Your task to perform on an android device: move an email to a new category in the gmail app Image 0: 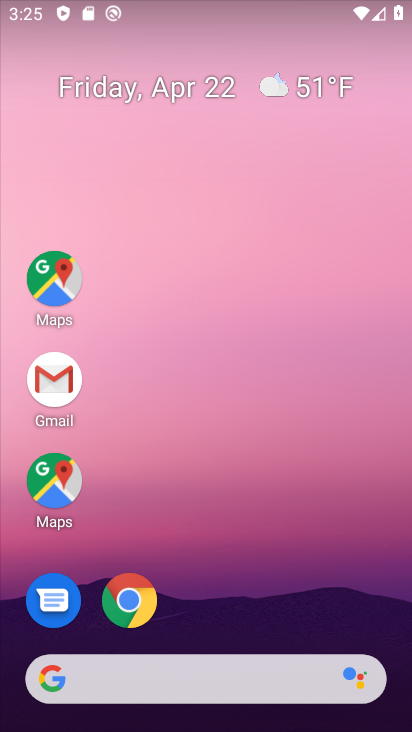
Step 0: drag from (308, 700) to (106, 102)
Your task to perform on an android device: move an email to a new category in the gmail app Image 1: 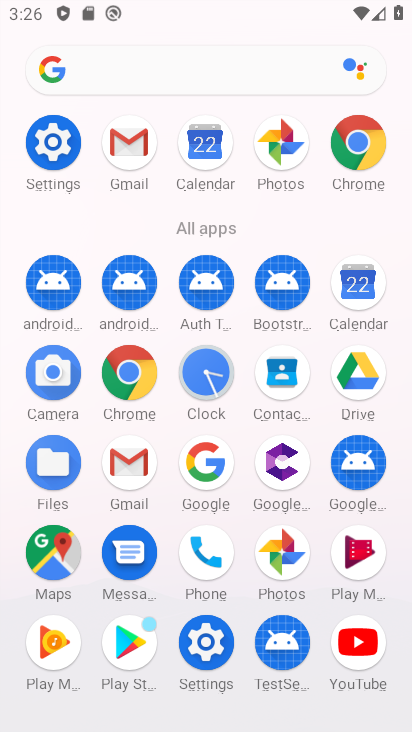
Step 1: click (120, 460)
Your task to perform on an android device: move an email to a new category in the gmail app Image 2: 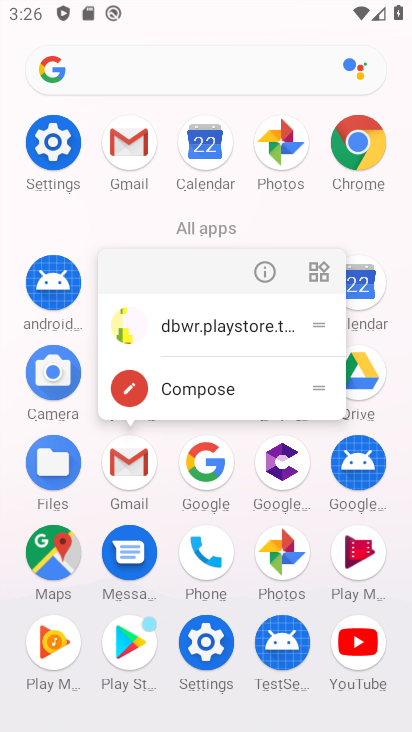
Step 2: click (122, 459)
Your task to perform on an android device: move an email to a new category in the gmail app Image 3: 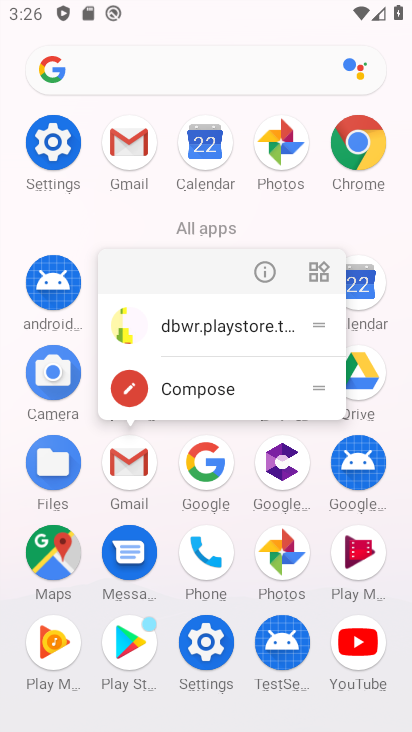
Step 3: click (136, 458)
Your task to perform on an android device: move an email to a new category in the gmail app Image 4: 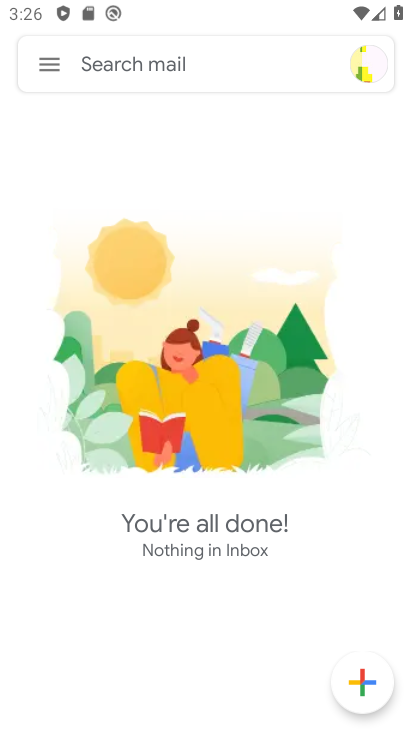
Step 4: drag from (46, 64) to (123, 359)
Your task to perform on an android device: move an email to a new category in the gmail app Image 5: 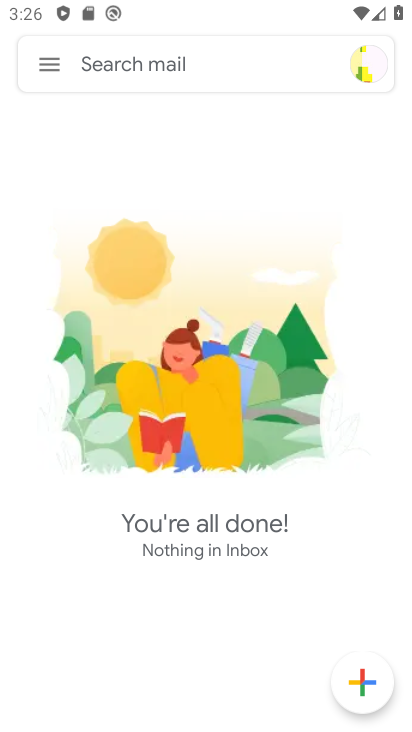
Step 5: click (51, 67)
Your task to perform on an android device: move an email to a new category in the gmail app Image 6: 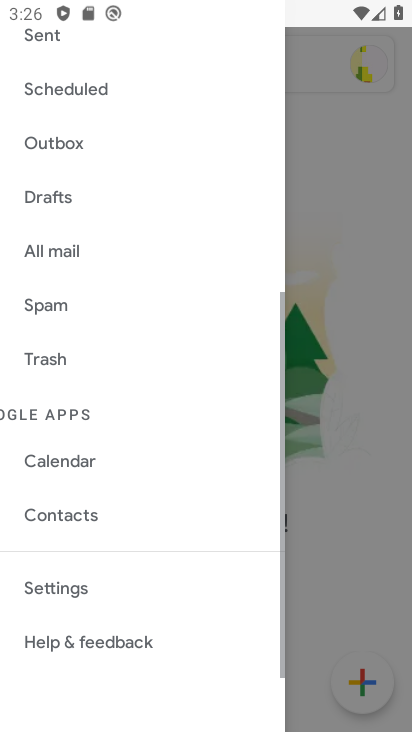
Step 6: click (51, 67)
Your task to perform on an android device: move an email to a new category in the gmail app Image 7: 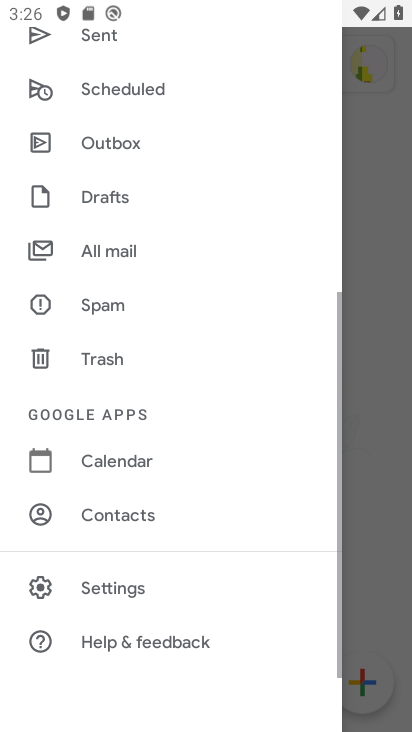
Step 7: click (51, 67)
Your task to perform on an android device: move an email to a new category in the gmail app Image 8: 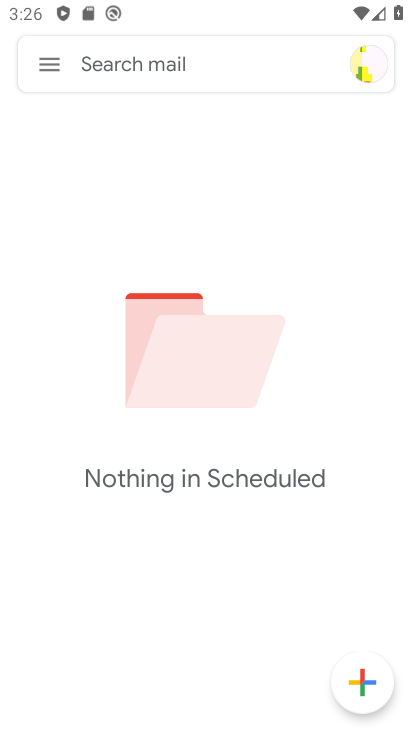
Step 8: click (41, 61)
Your task to perform on an android device: move an email to a new category in the gmail app Image 9: 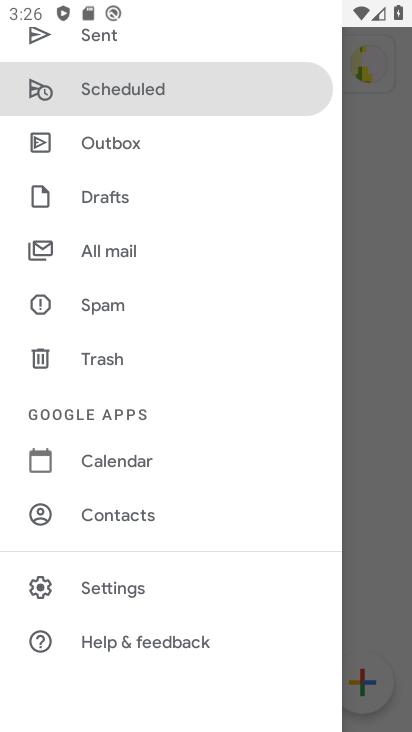
Step 9: click (105, 259)
Your task to perform on an android device: move an email to a new category in the gmail app Image 10: 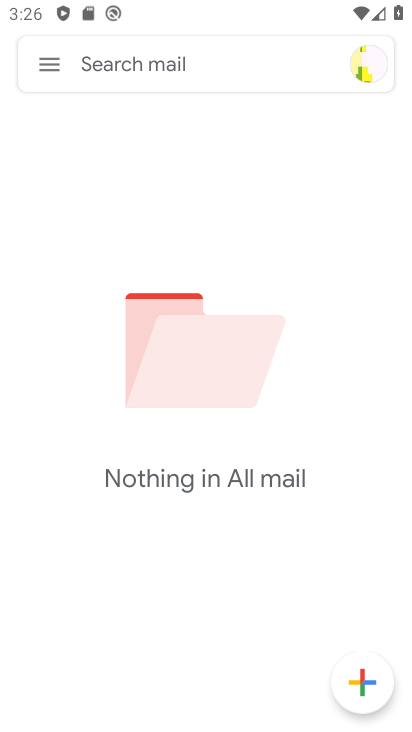
Step 10: task complete